Your task to perform on an android device: Go to privacy settings Image 0: 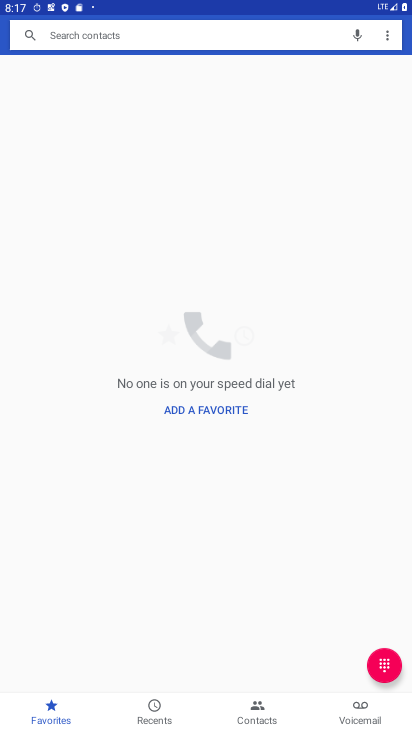
Step 0: press home button
Your task to perform on an android device: Go to privacy settings Image 1: 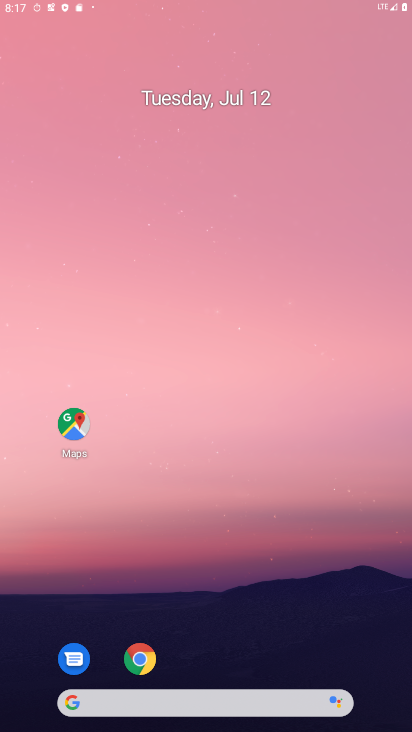
Step 1: drag from (382, 662) to (241, 4)
Your task to perform on an android device: Go to privacy settings Image 2: 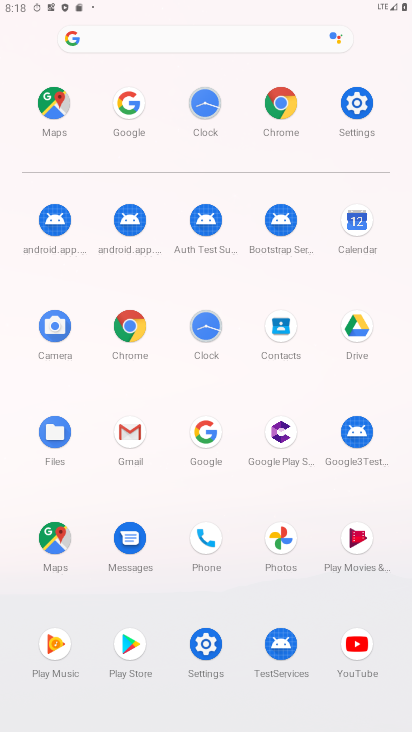
Step 2: click (206, 650)
Your task to perform on an android device: Go to privacy settings Image 3: 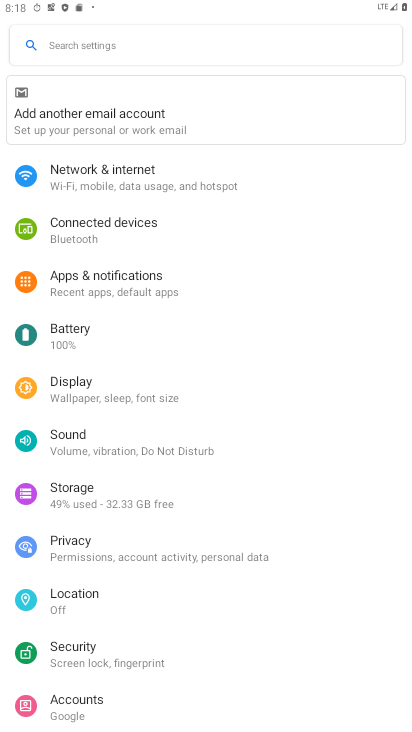
Step 3: click (71, 557)
Your task to perform on an android device: Go to privacy settings Image 4: 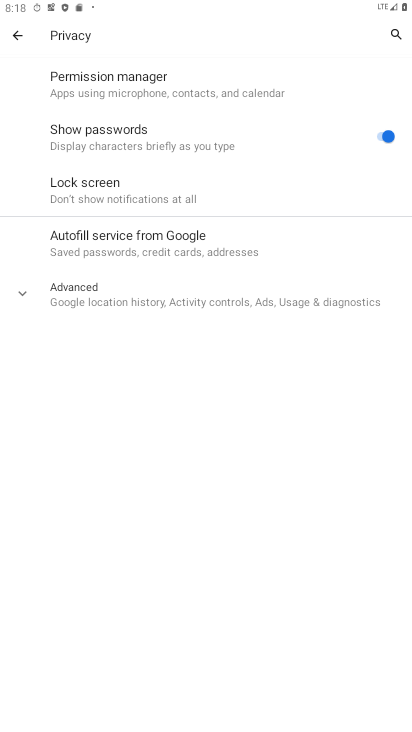
Step 4: task complete